Your task to perform on an android device: Go to Google maps Image 0: 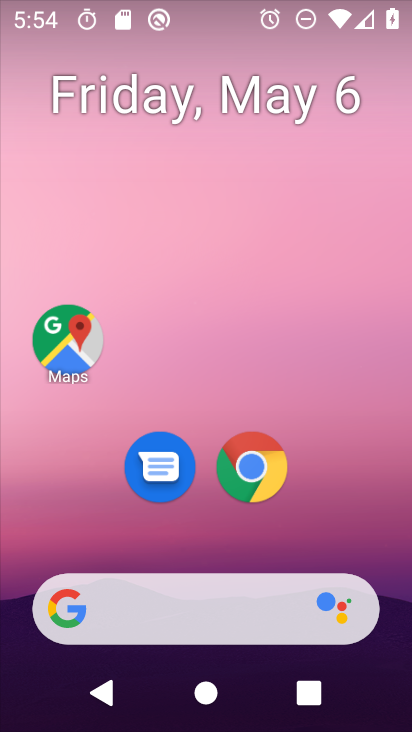
Step 0: drag from (328, 549) to (335, 100)
Your task to perform on an android device: Go to Google maps Image 1: 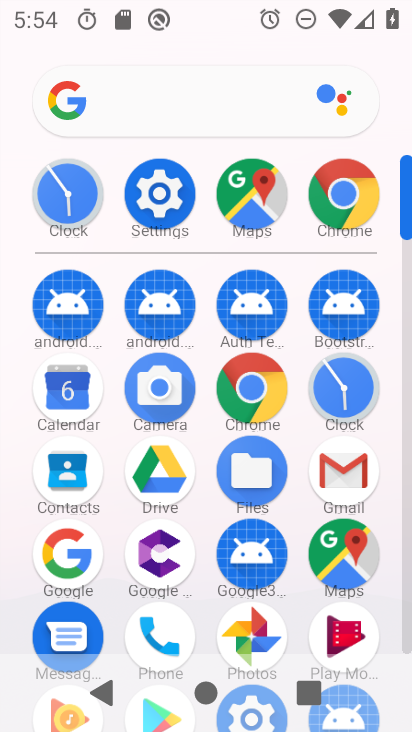
Step 1: click (247, 213)
Your task to perform on an android device: Go to Google maps Image 2: 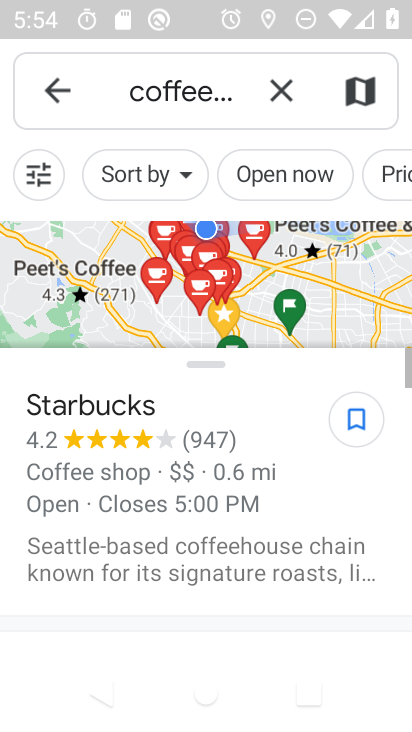
Step 2: task complete